Your task to perform on an android device: Open Youtube and go to "Your channel" Image 0: 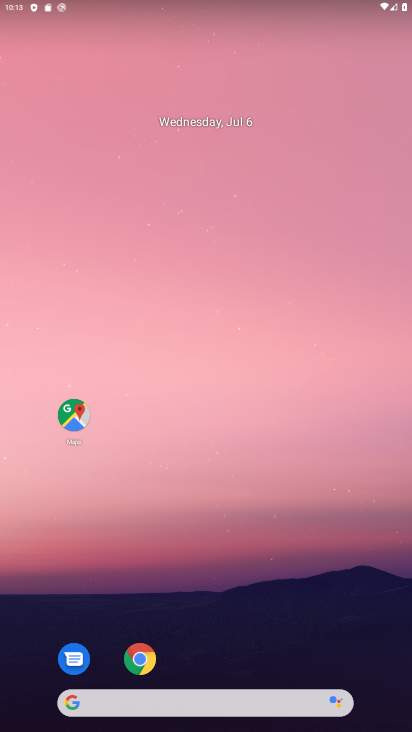
Step 0: drag from (203, 618) to (210, 88)
Your task to perform on an android device: Open Youtube and go to "Your channel" Image 1: 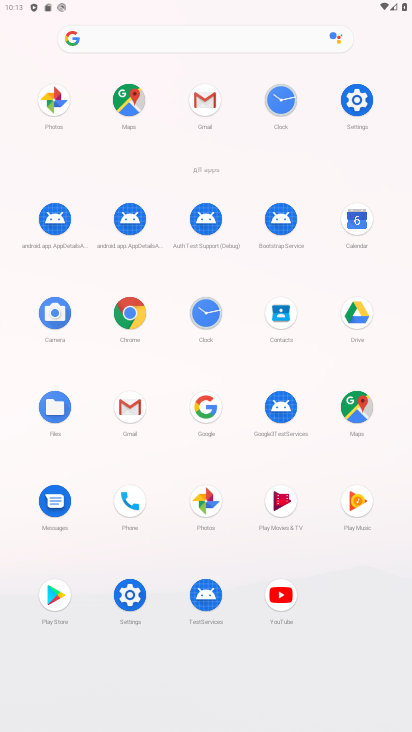
Step 1: click (282, 602)
Your task to perform on an android device: Open Youtube and go to "Your channel" Image 2: 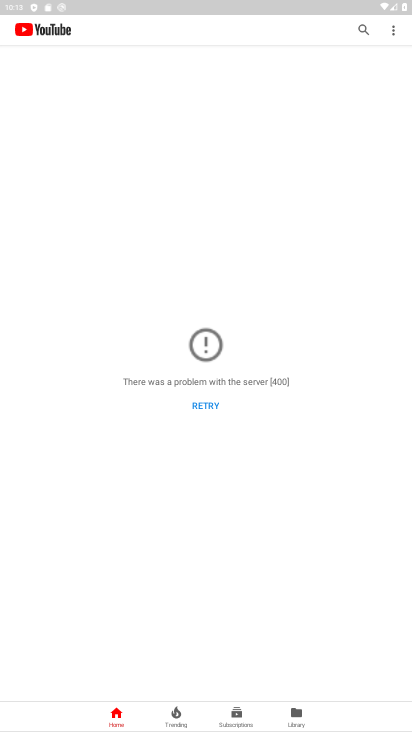
Step 2: click (220, 410)
Your task to perform on an android device: Open Youtube and go to "Your channel" Image 3: 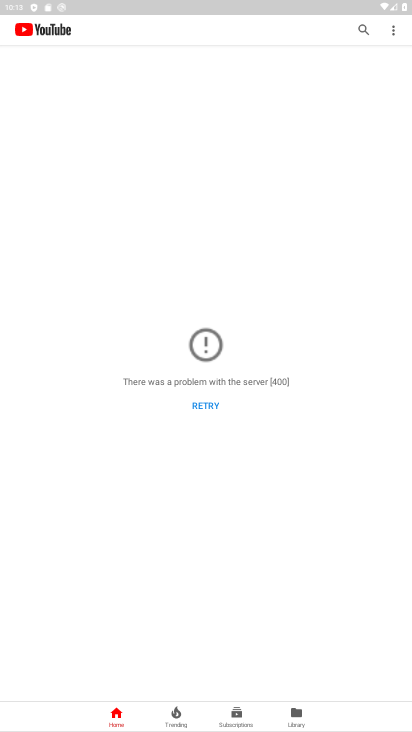
Step 3: task complete